Your task to perform on an android device: refresh tabs in the chrome app Image 0: 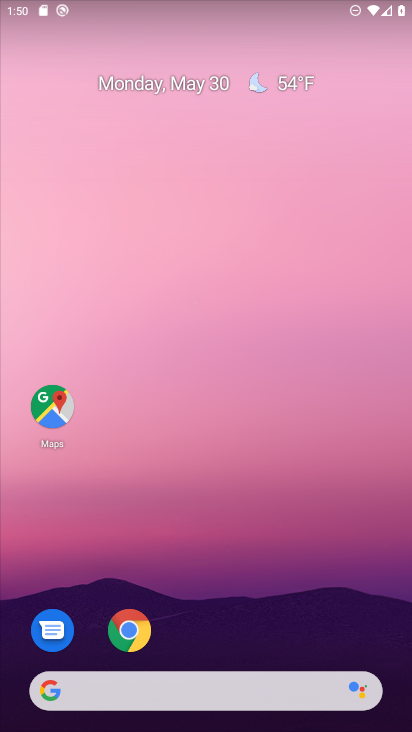
Step 0: click (138, 622)
Your task to perform on an android device: refresh tabs in the chrome app Image 1: 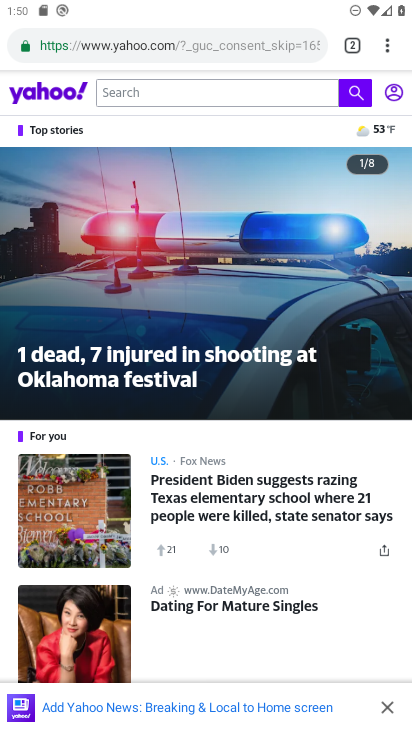
Step 1: click (390, 53)
Your task to perform on an android device: refresh tabs in the chrome app Image 2: 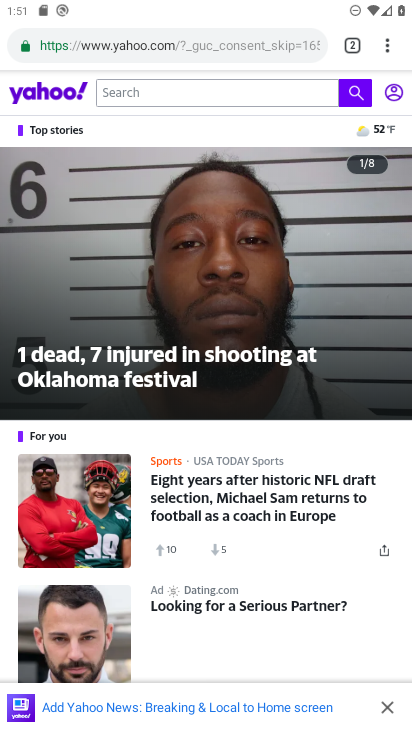
Step 2: task complete